Your task to perform on an android device: Open wifi settings Image 0: 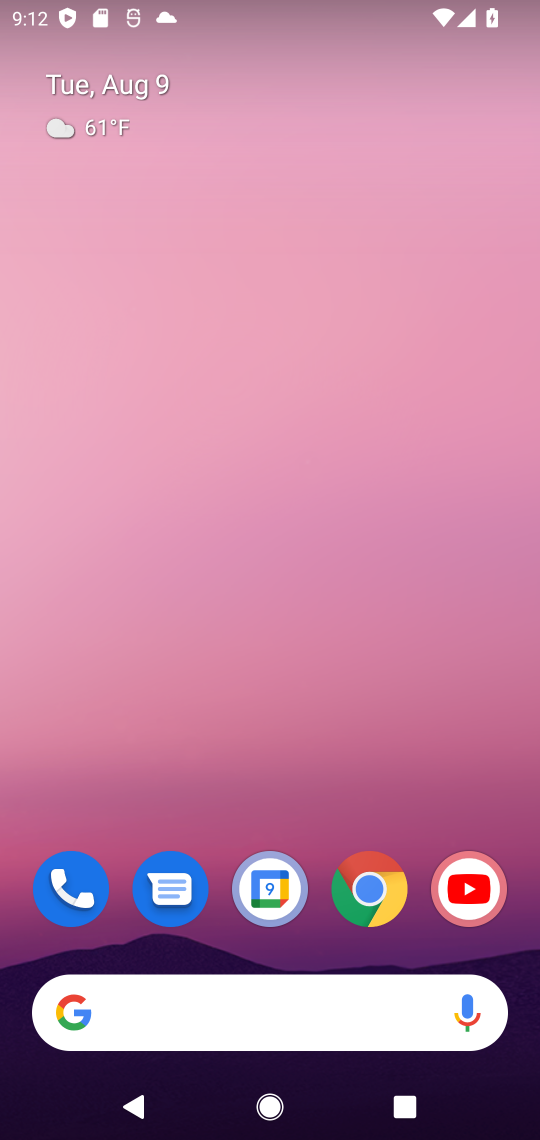
Step 0: drag from (274, 881) to (241, 179)
Your task to perform on an android device: Open wifi settings Image 1: 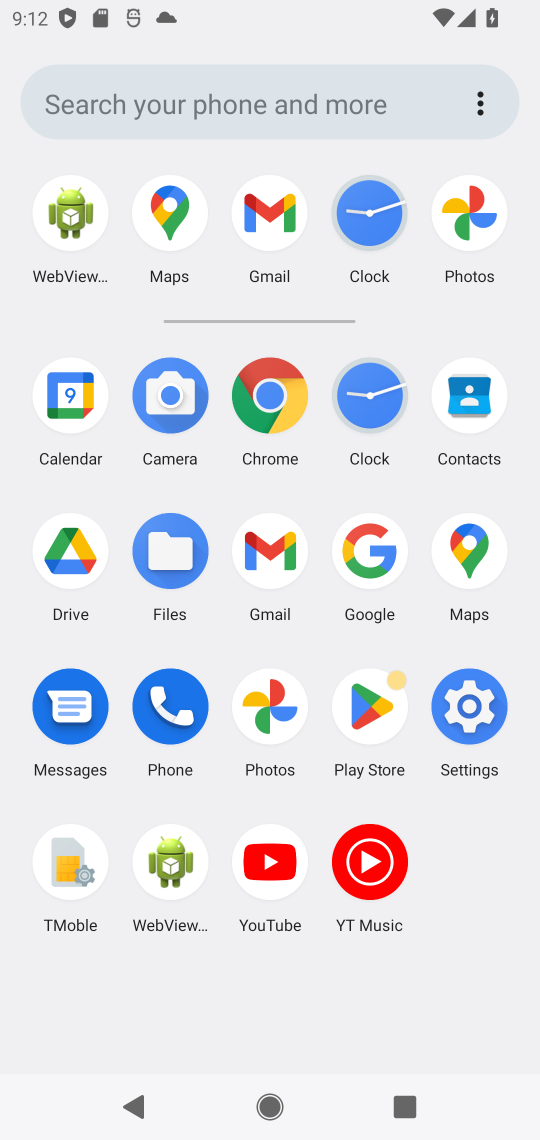
Step 1: click (468, 725)
Your task to perform on an android device: Open wifi settings Image 2: 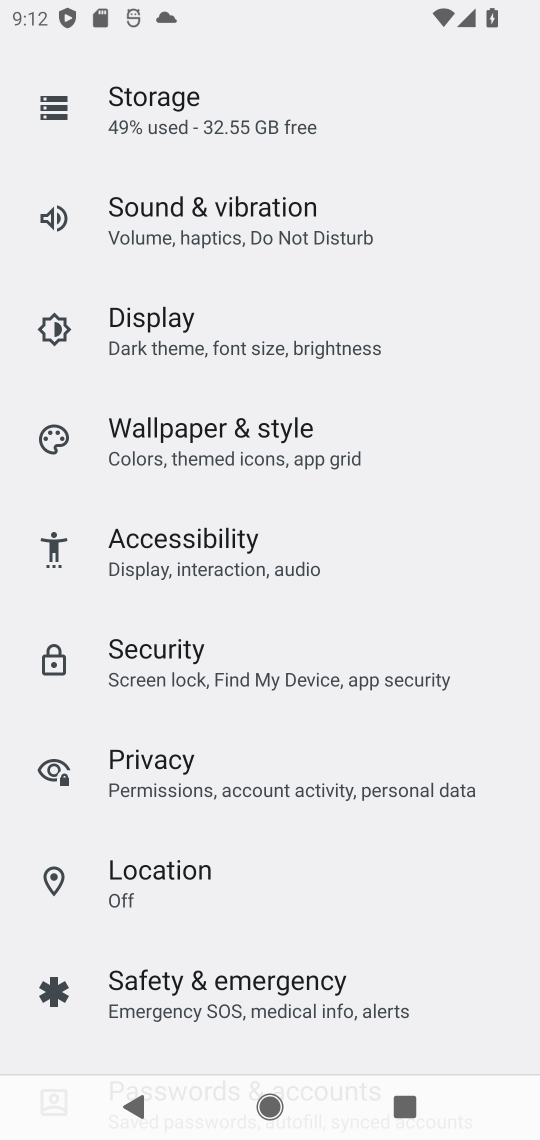
Step 2: drag from (180, 371) to (119, 967)
Your task to perform on an android device: Open wifi settings Image 3: 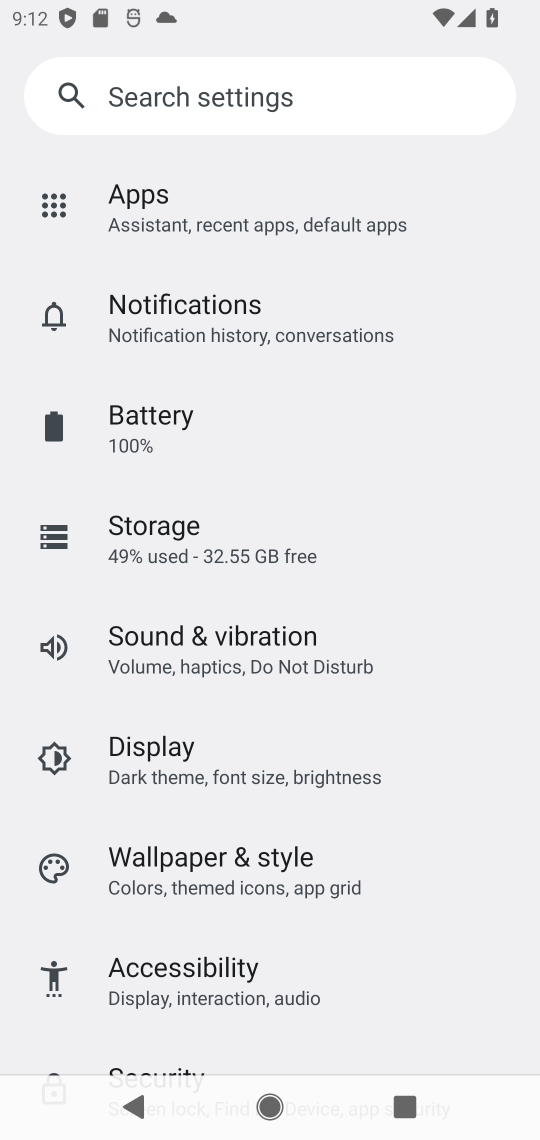
Step 3: drag from (201, 265) to (229, 929)
Your task to perform on an android device: Open wifi settings Image 4: 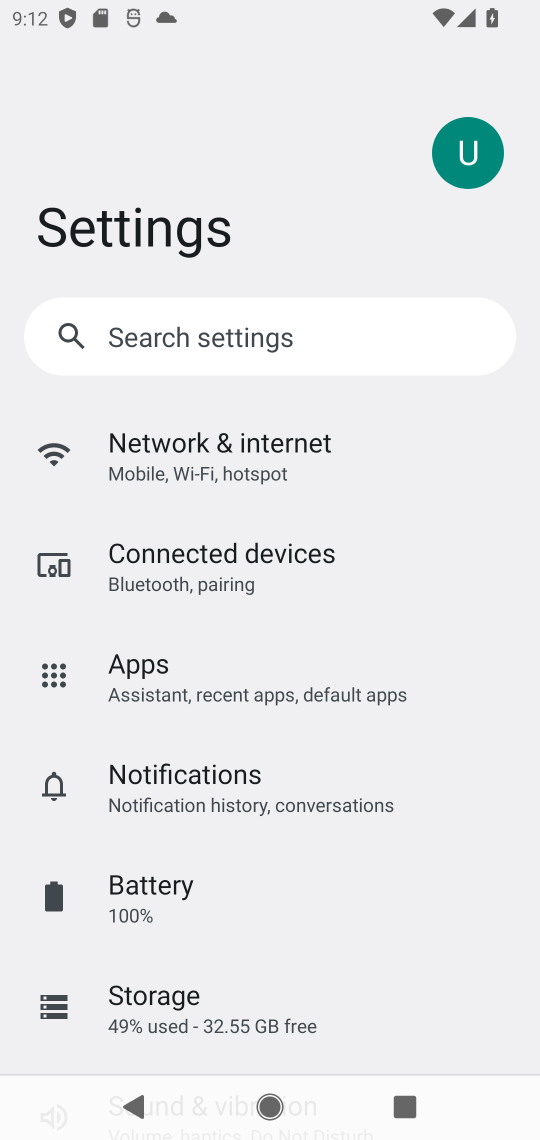
Step 4: click (182, 471)
Your task to perform on an android device: Open wifi settings Image 5: 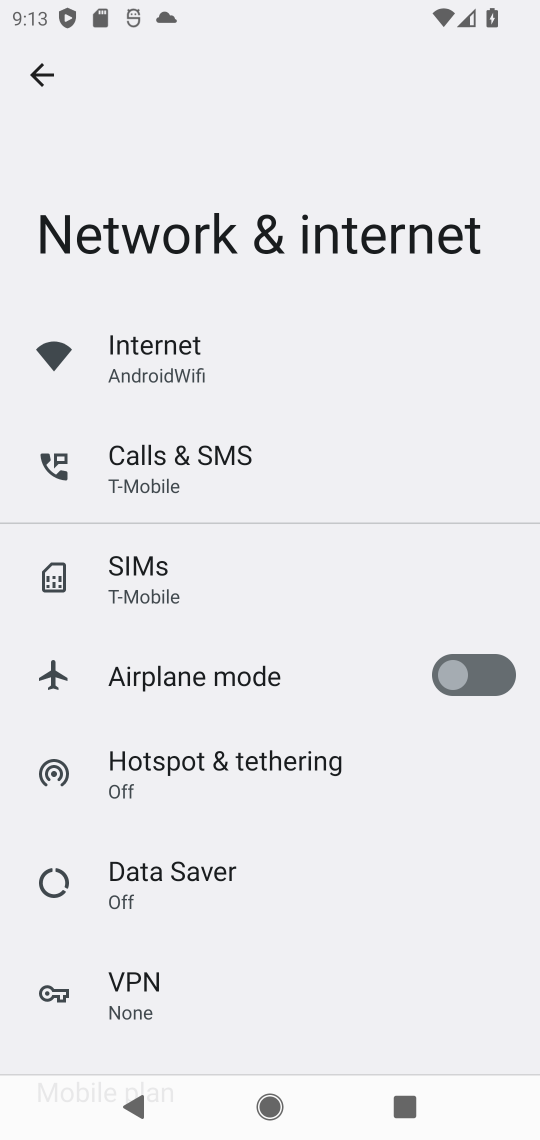
Step 5: click (138, 370)
Your task to perform on an android device: Open wifi settings Image 6: 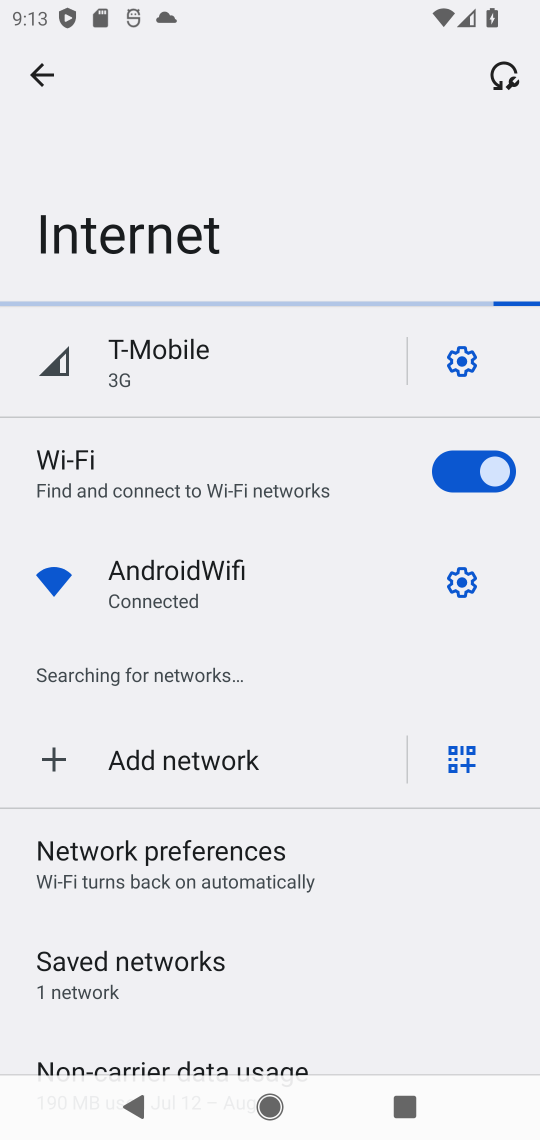
Step 6: click (31, 511)
Your task to perform on an android device: Open wifi settings Image 7: 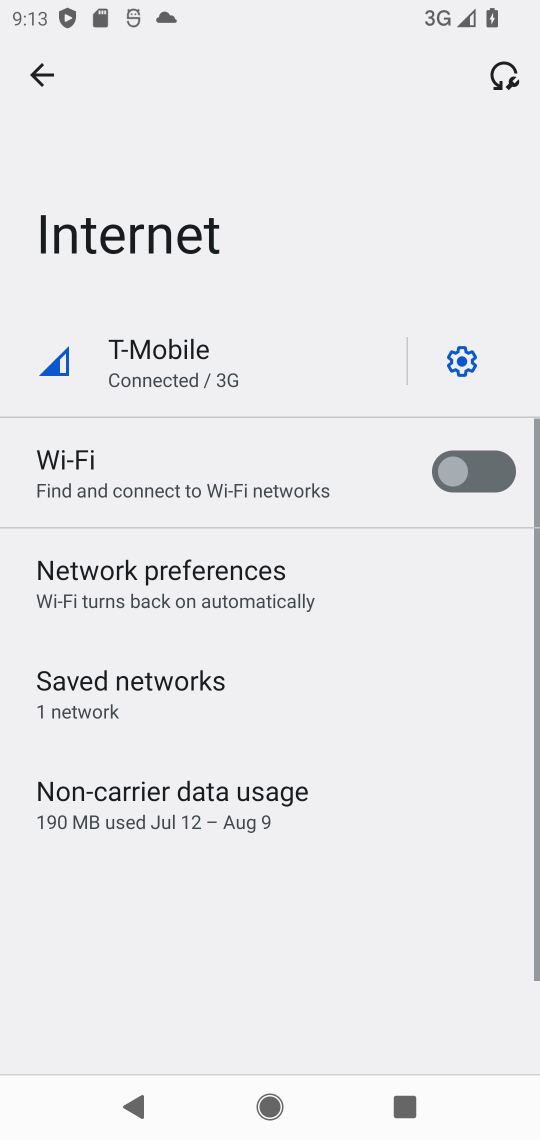
Step 7: task complete